Your task to perform on an android device: Open the map Image 0: 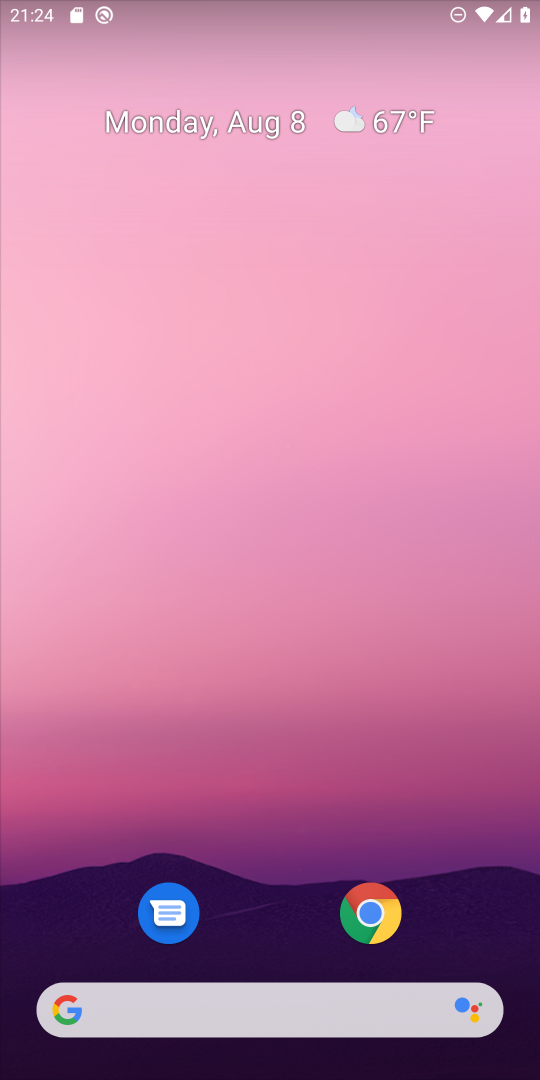
Step 0: drag from (266, 1010) to (234, 150)
Your task to perform on an android device: Open the map Image 1: 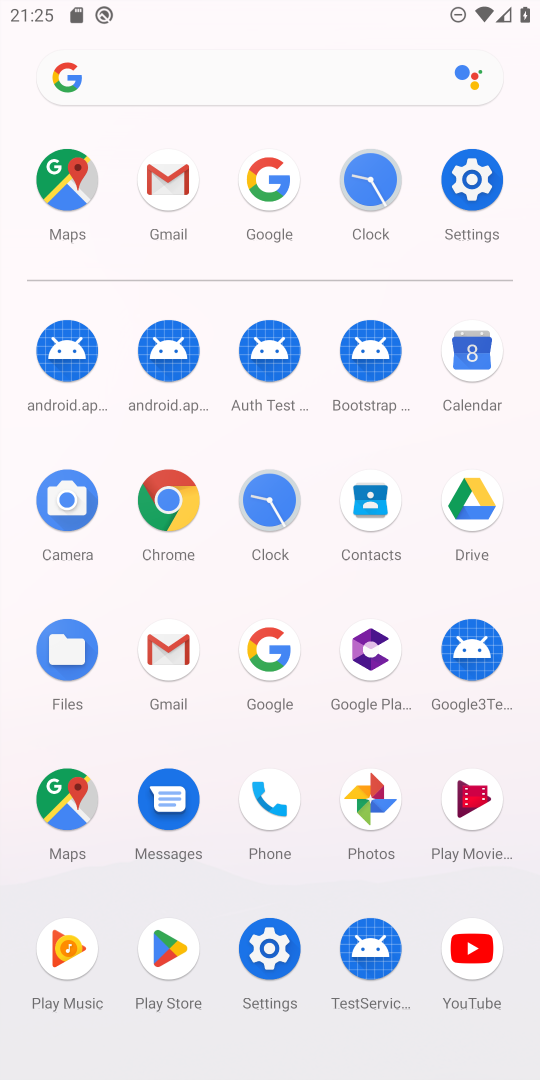
Step 1: click (66, 180)
Your task to perform on an android device: Open the map Image 2: 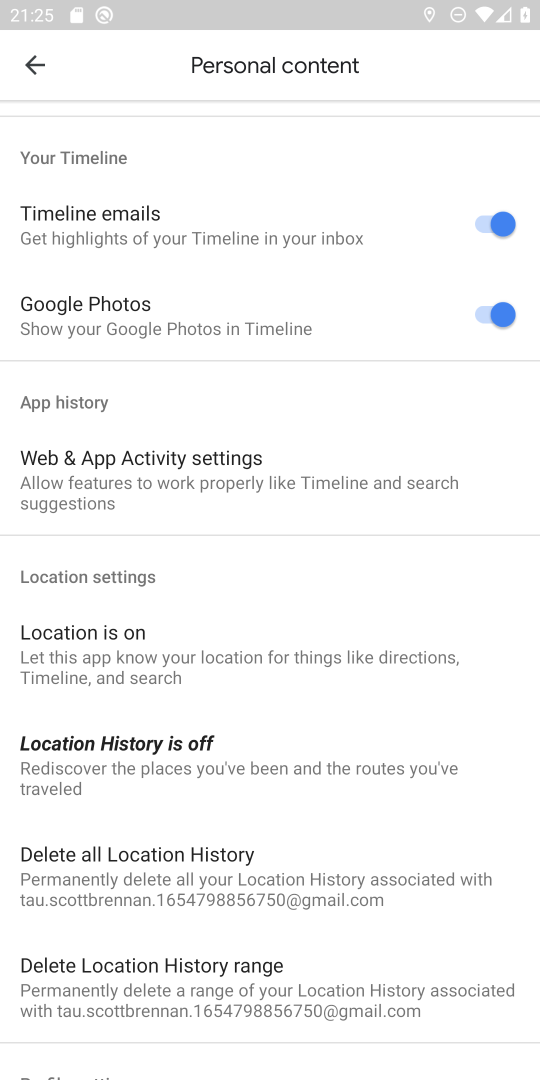
Step 2: task complete